Your task to perform on an android device: Go to Google Image 0: 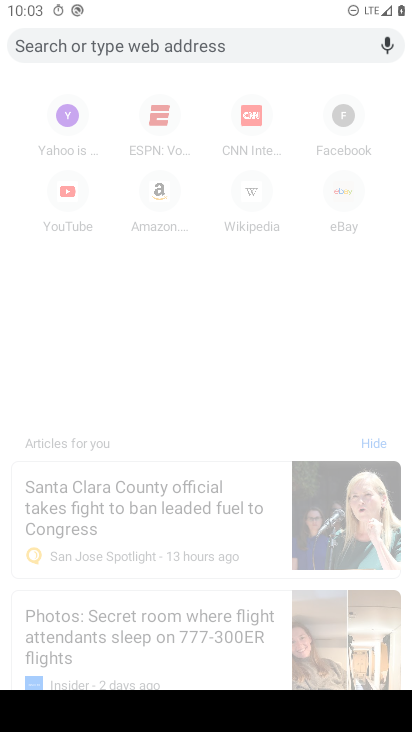
Step 0: click (92, 49)
Your task to perform on an android device: Go to Google Image 1: 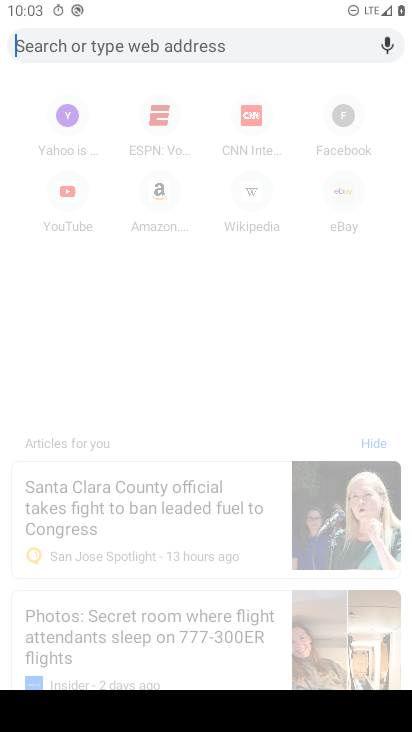
Step 1: task complete